Your task to perform on an android device: toggle javascript in the chrome app Image 0: 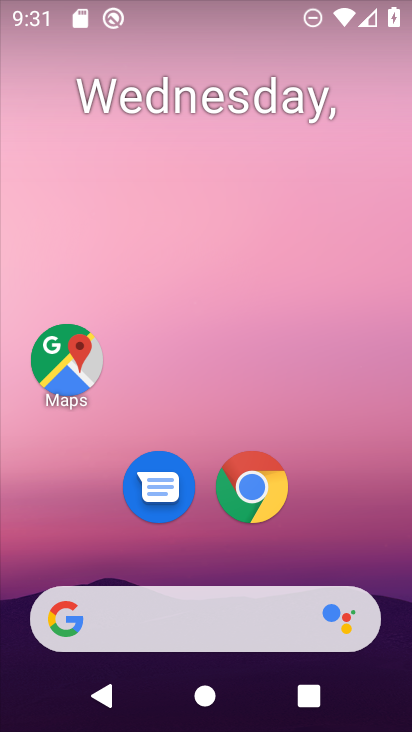
Step 0: drag from (315, 664) to (276, 288)
Your task to perform on an android device: toggle javascript in the chrome app Image 1: 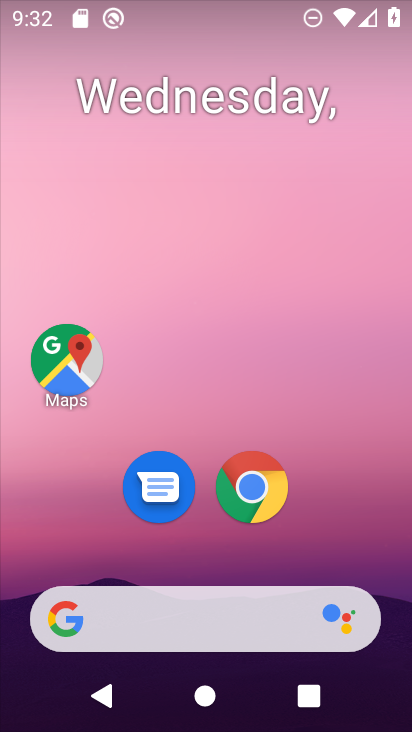
Step 1: drag from (267, 658) to (131, 304)
Your task to perform on an android device: toggle javascript in the chrome app Image 2: 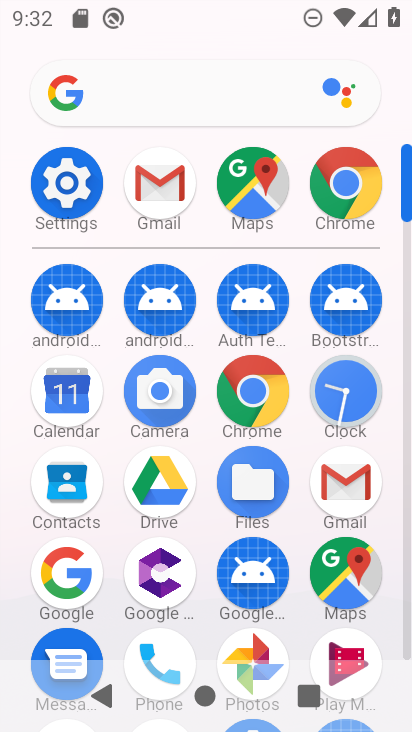
Step 2: click (345, 186)
Your task to perform on an android device: toggle javascript in the chrome app Image 3: 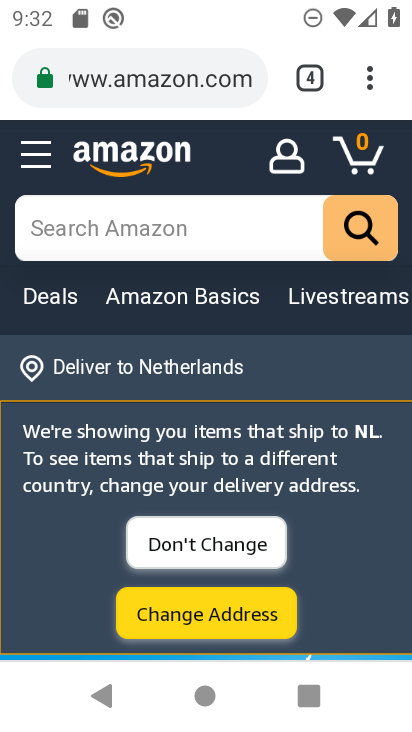
Step 3: click (379, 93)
Your task to perform on an android device: toggle javascript in the chrome app Image 4: 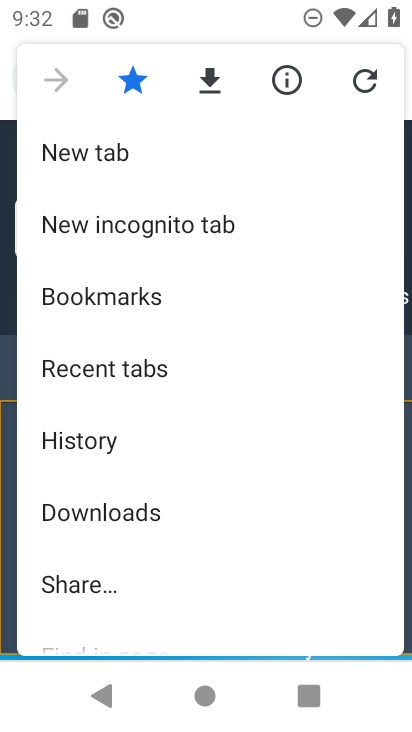
Step 4: drag from (233, 506) to (206, 228)
Your task to perform on an android device: toggle javascript in the chrome app Image 5: 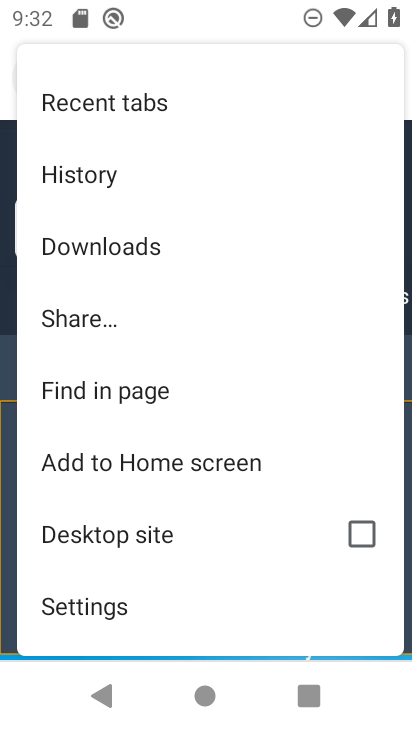
Step 5: click (142, 589)
Your task to perform on an android device: toggle javascript in the chrome app Image 6: 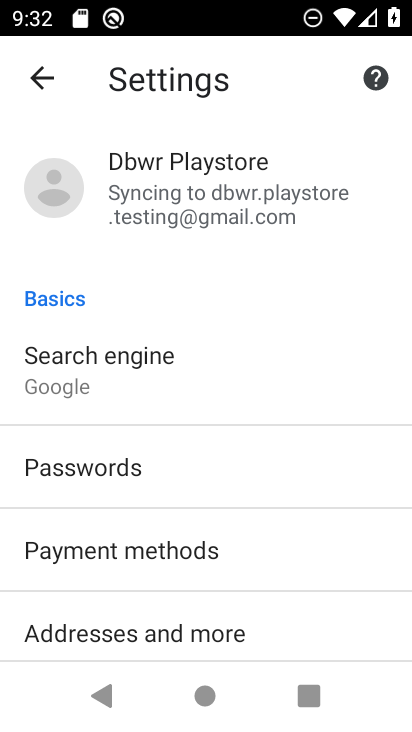
Step 6: drag from (206, 536) to (190, 448)
Your task to perform on an android device: toggle javascript in the chrome app Image 7: 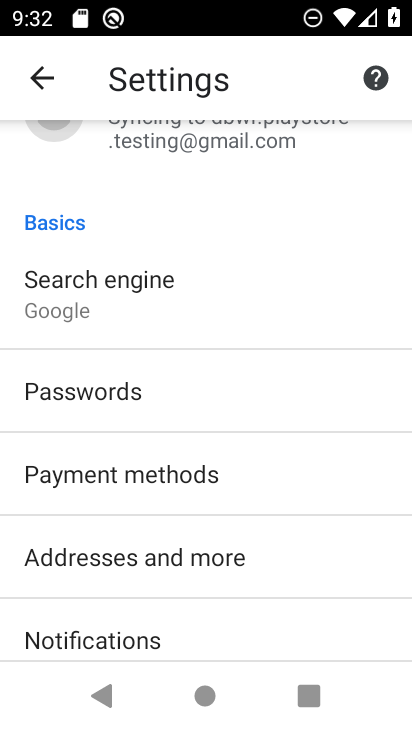
Step 7: drag from (186, 577) to (124, 370)
Your task to perform on an android device: toggle javascript in the chrome app Image 8: 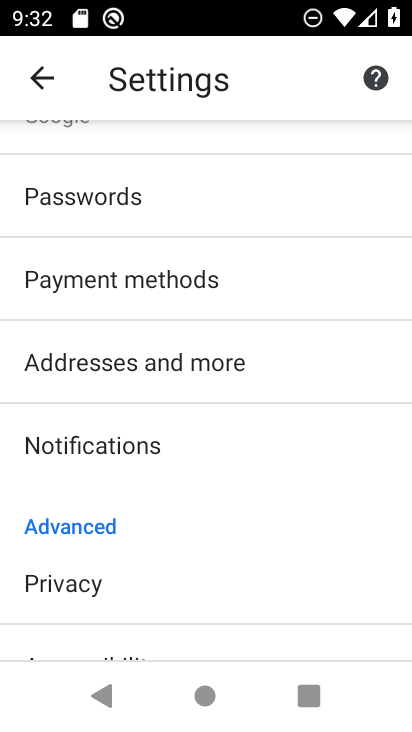
Step 8: drag from (143, 543) to (111, 310)
Your task to perform on an android device: toggle javascript in the chrome app Image 9: 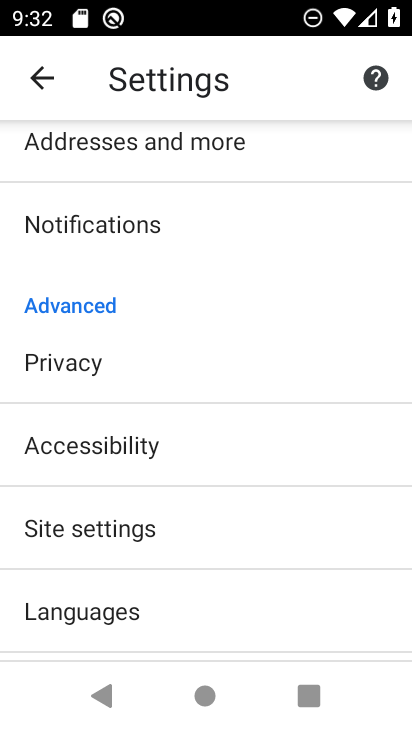
Step 9: click (143, 530)
Your task to perform on an android device: toggle javascript in the chrome app Image 10: 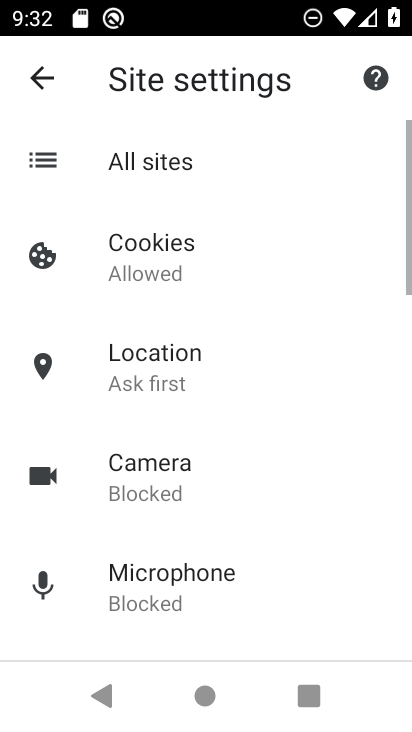
Step 10: drag from (307, 603) to (243, 236)
Your task to perform on an android device: toggle javascript in the chrome app Image 11: 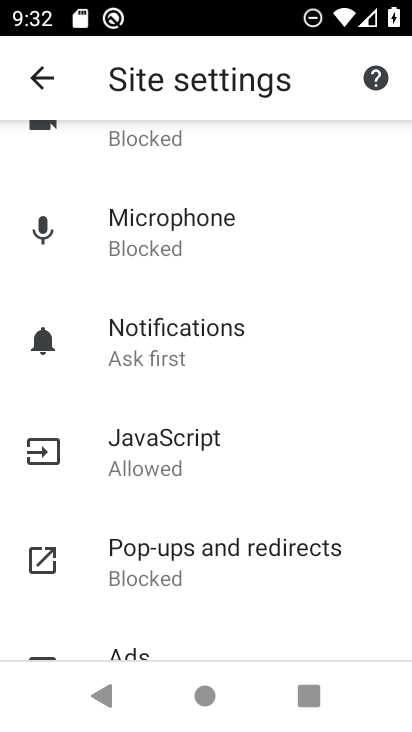
Step 11: click (197, 462)
Your task to perform on an android device: toggle javascript in the chrome app Image 12: 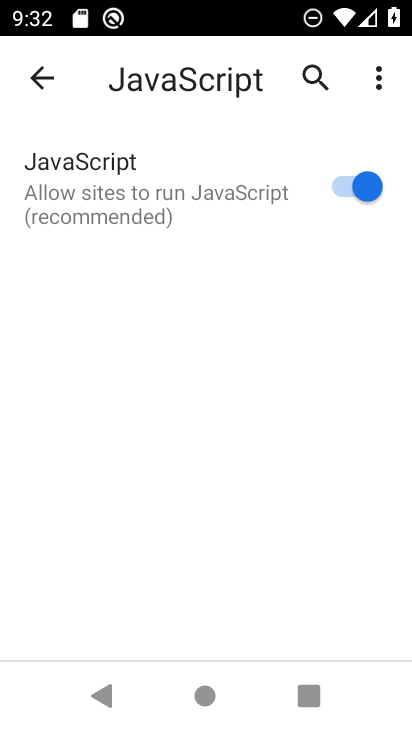
Step 12: task complete